Your task to perform on an android device: Open Google Image 0: 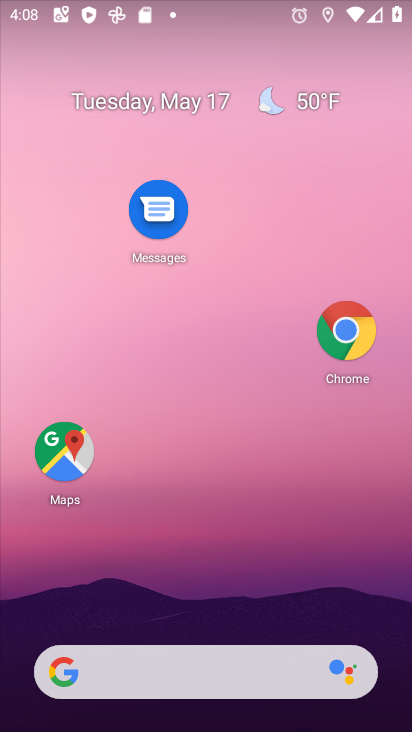
Step 0: click (335, 587)
Your task to perform on an android device: Open Google Image 1: 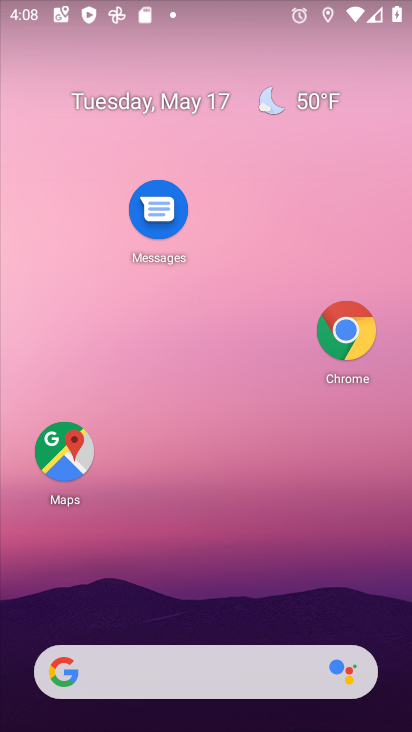
Step 1: click (354, 323)
Your task to perform on an android device: Open Google Image 2: 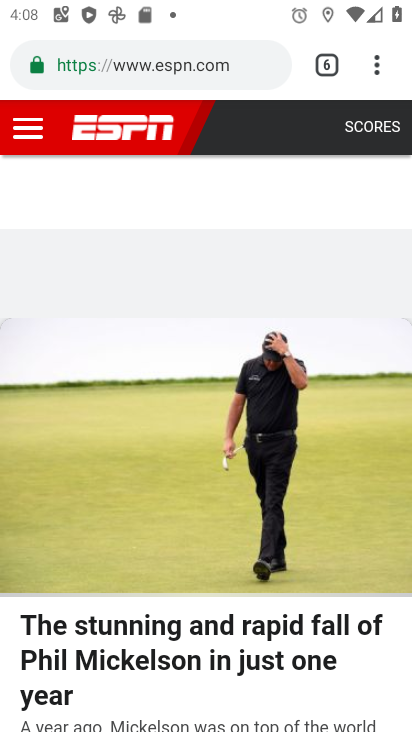
Step 2: click (186, 58)
Your task to perform on an android device: Open Google Image 3: 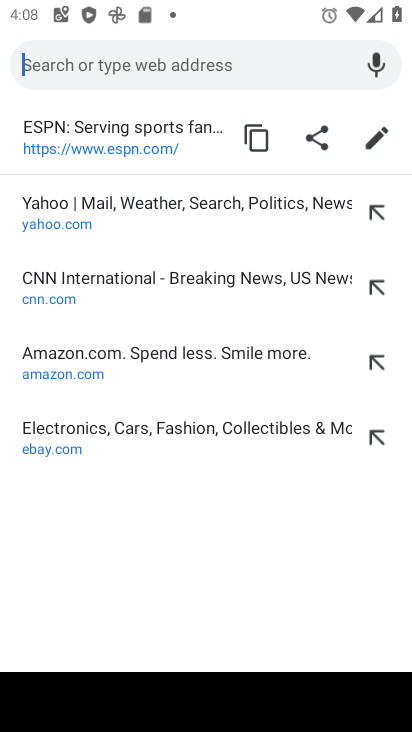
Step 3: type "google.com"
Your task to perform on an android device: Open Google Image 4: 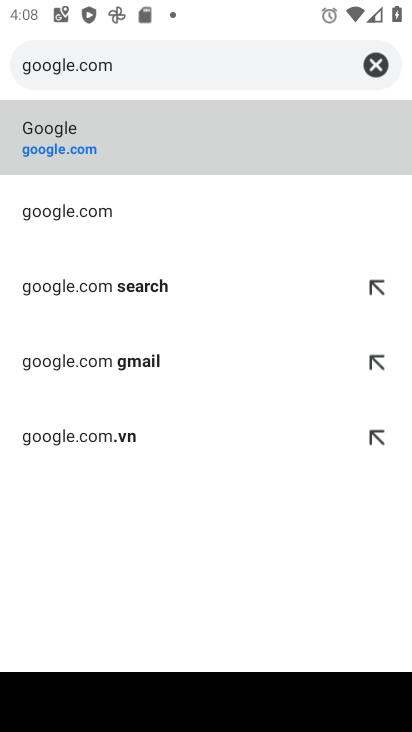
Step 4: click (185, 144)
Your task to perform on an android device: Open Google Image 5: 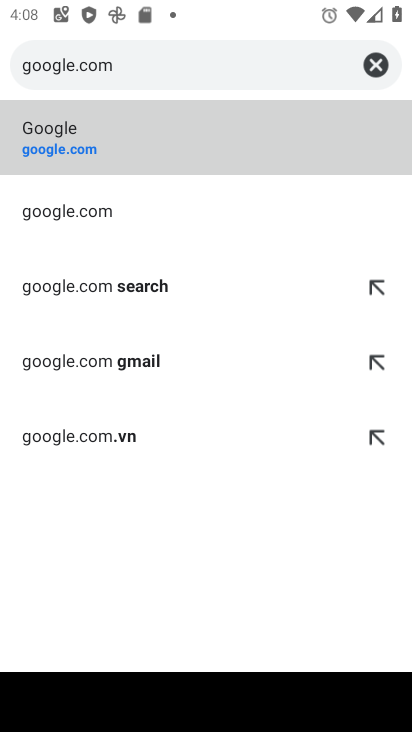
Step 5: click (185, 144)
Your task to perform on an android device: Open Google Image 6: 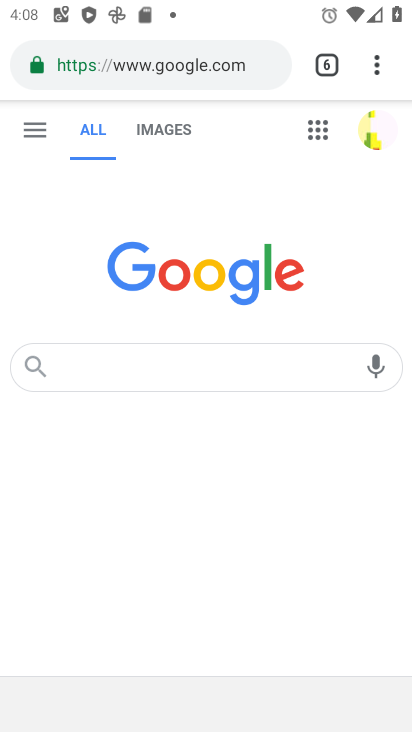
Step 6: task complete